Your task to perform on an android device: Open battery settings Image 0: 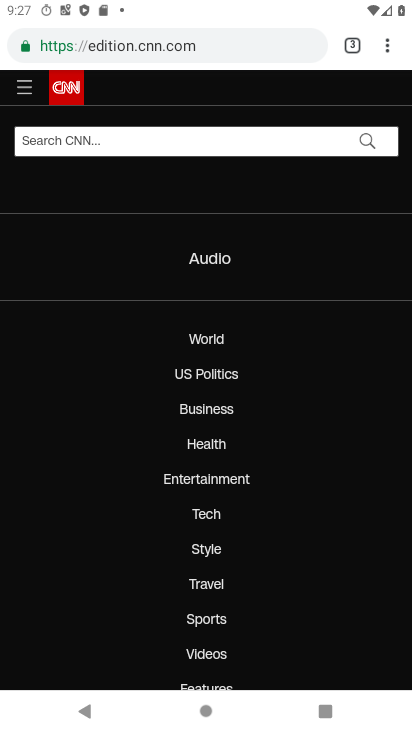
Step 0: press home button
Your task to perform on an android device: Open battery settings Image 1: 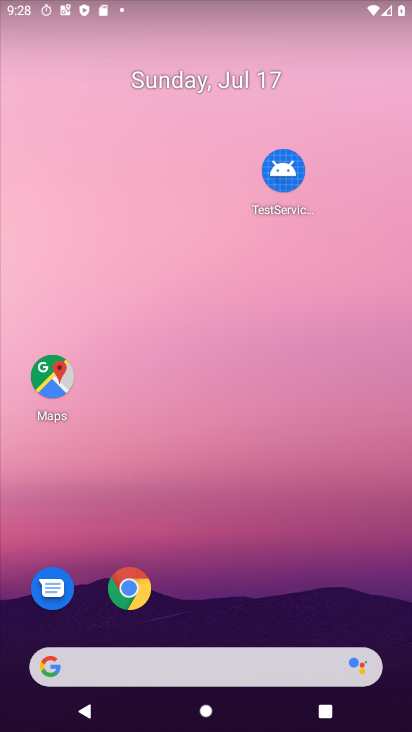
Step 1: drag from (197, 619) to (245, 108)
Your task to perform on an android device: Open battery settings Image 2: 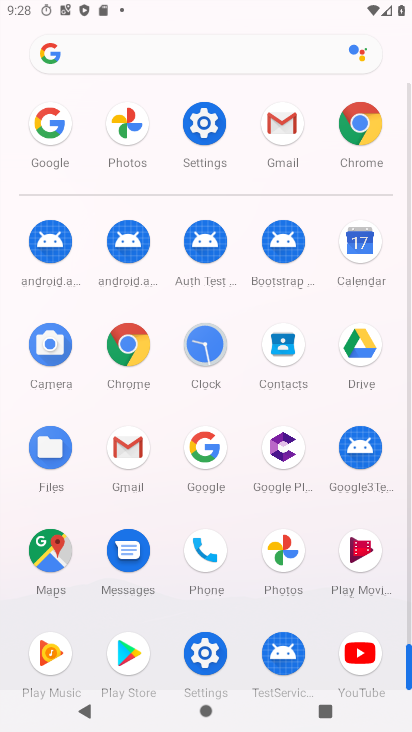
Step 2: click (208, 143)
Your task to perform on an android device: Open battery settings Image 3: 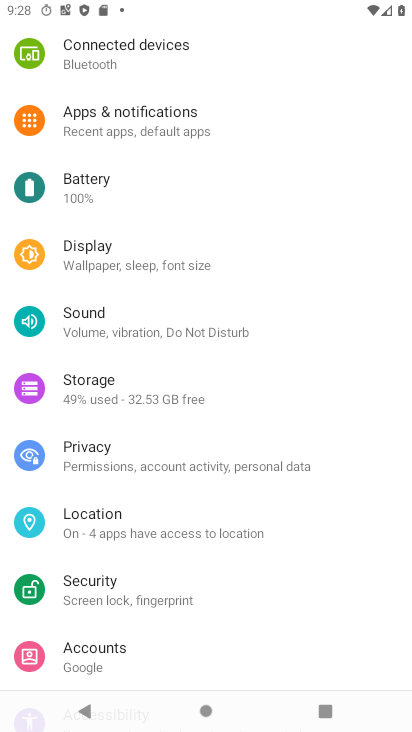
Step 3: click (131, 190)
Your task to perform on an android device: Open battery settings Image 4: 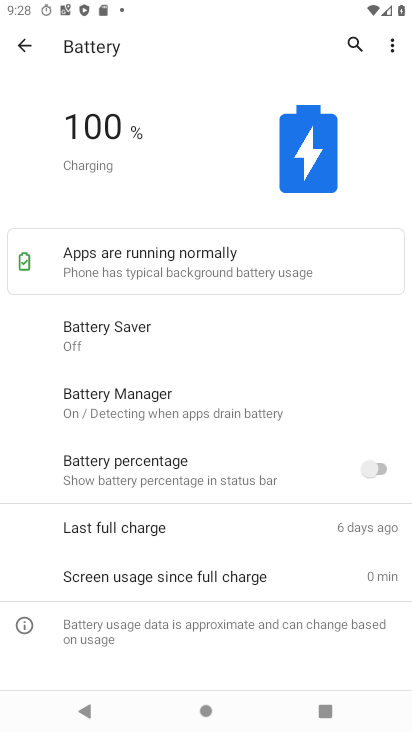
Step 4: drag from (266, 418) to (266, 316)
Your task to perform on an android device: Open battery settings Image 5: 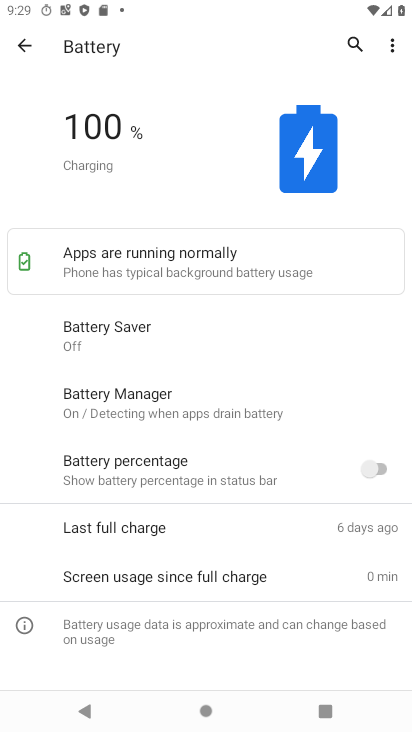
Step 5: click (253, 224)
Your task to perform on an android device: Open battery settings Image 6: 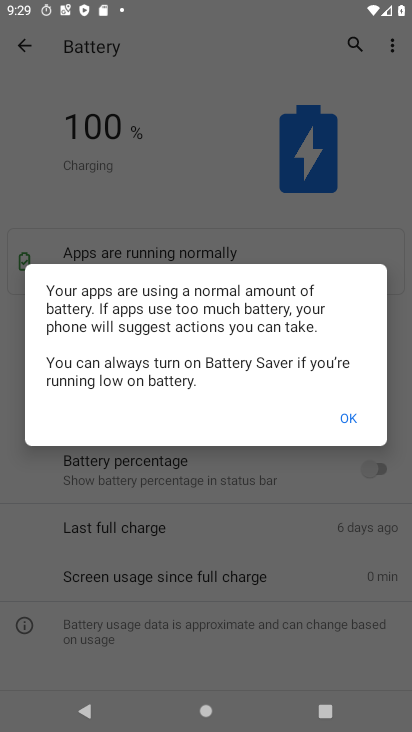
Step 6: task complete